Your task to perform on an android device: Open Wikipedia Image 0: 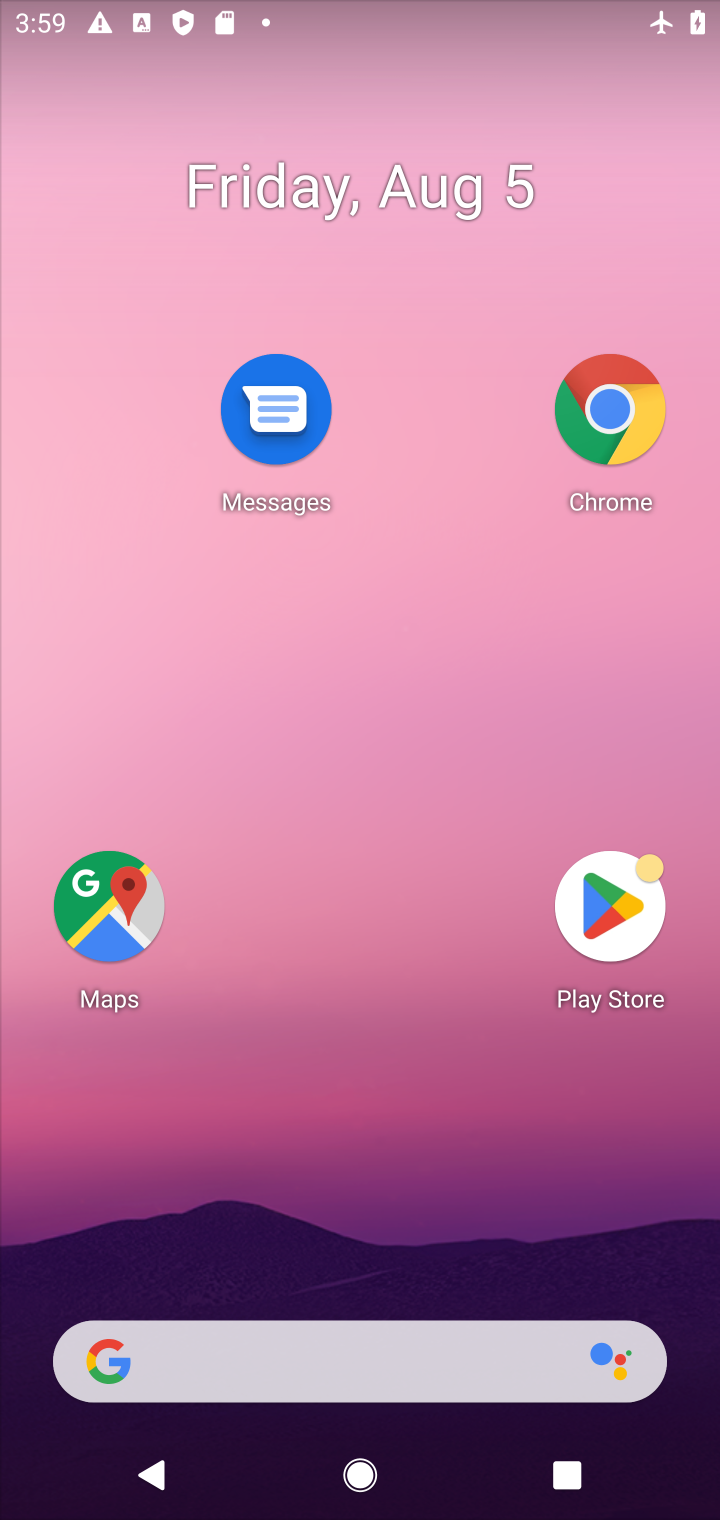
Step 0: click (580, 488)
Your task to perform on an android device: Open Wikipedia Image 1: 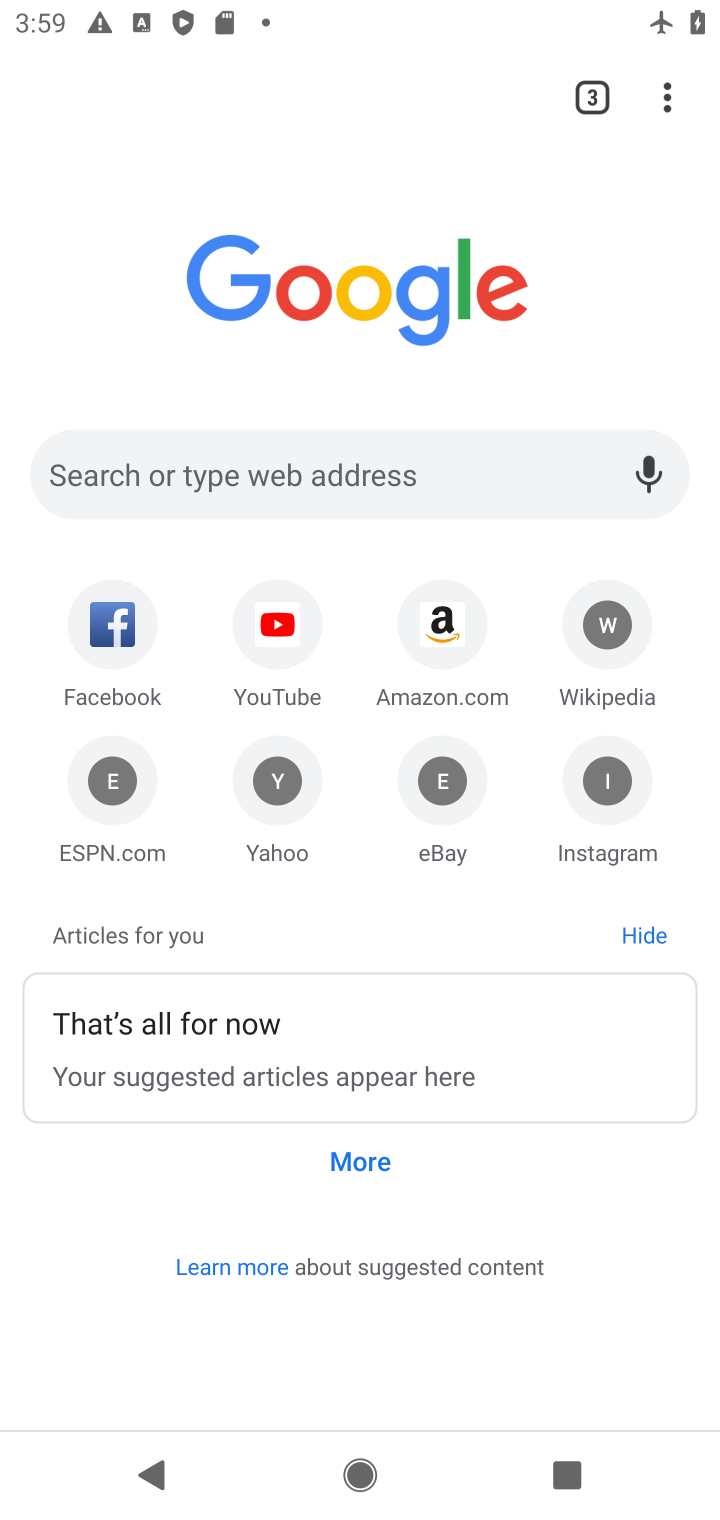
Step 1: click (580, 624)
Your task to perform on an android device: Open Wikipedia Image 2: 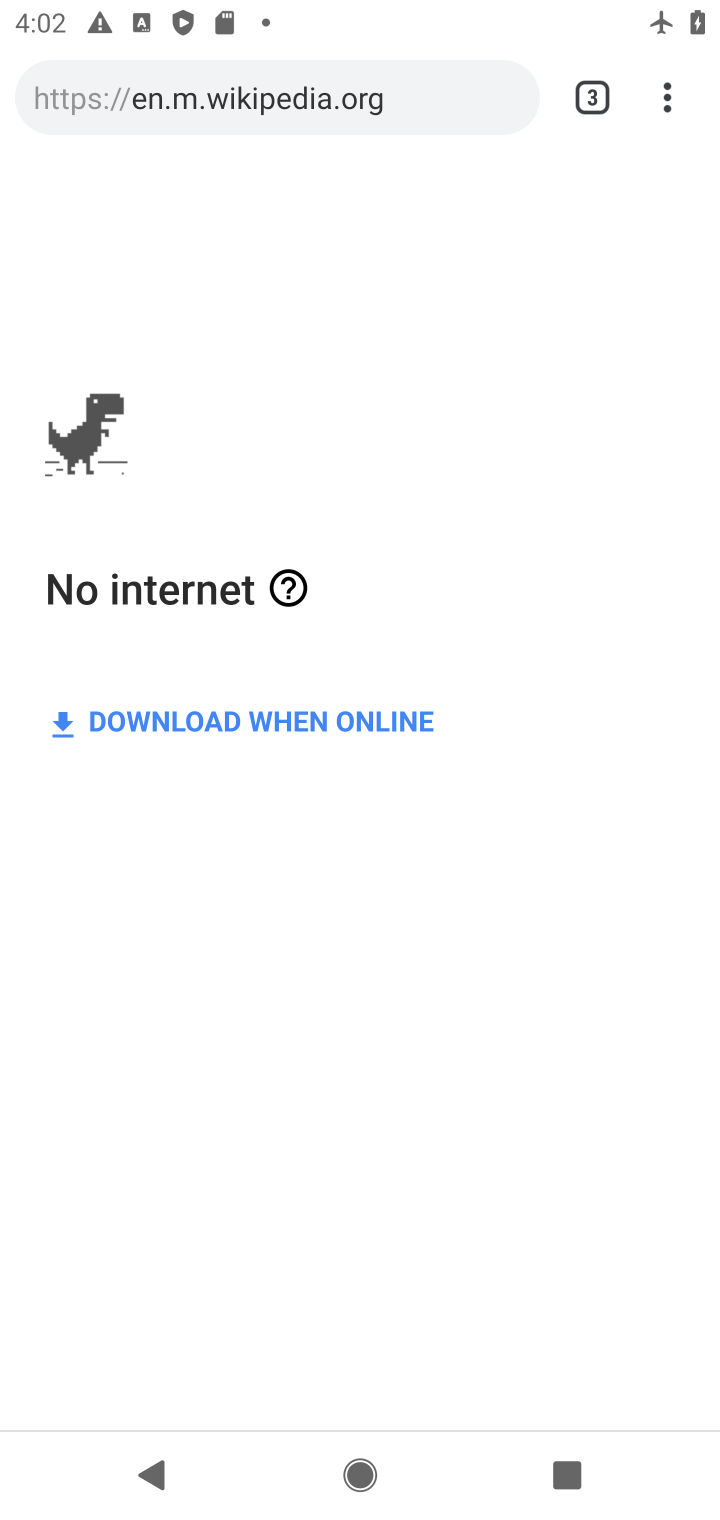
Step 2: click (580, 93)
Your task to perform on an android device: Open Wikipedia Image 3: 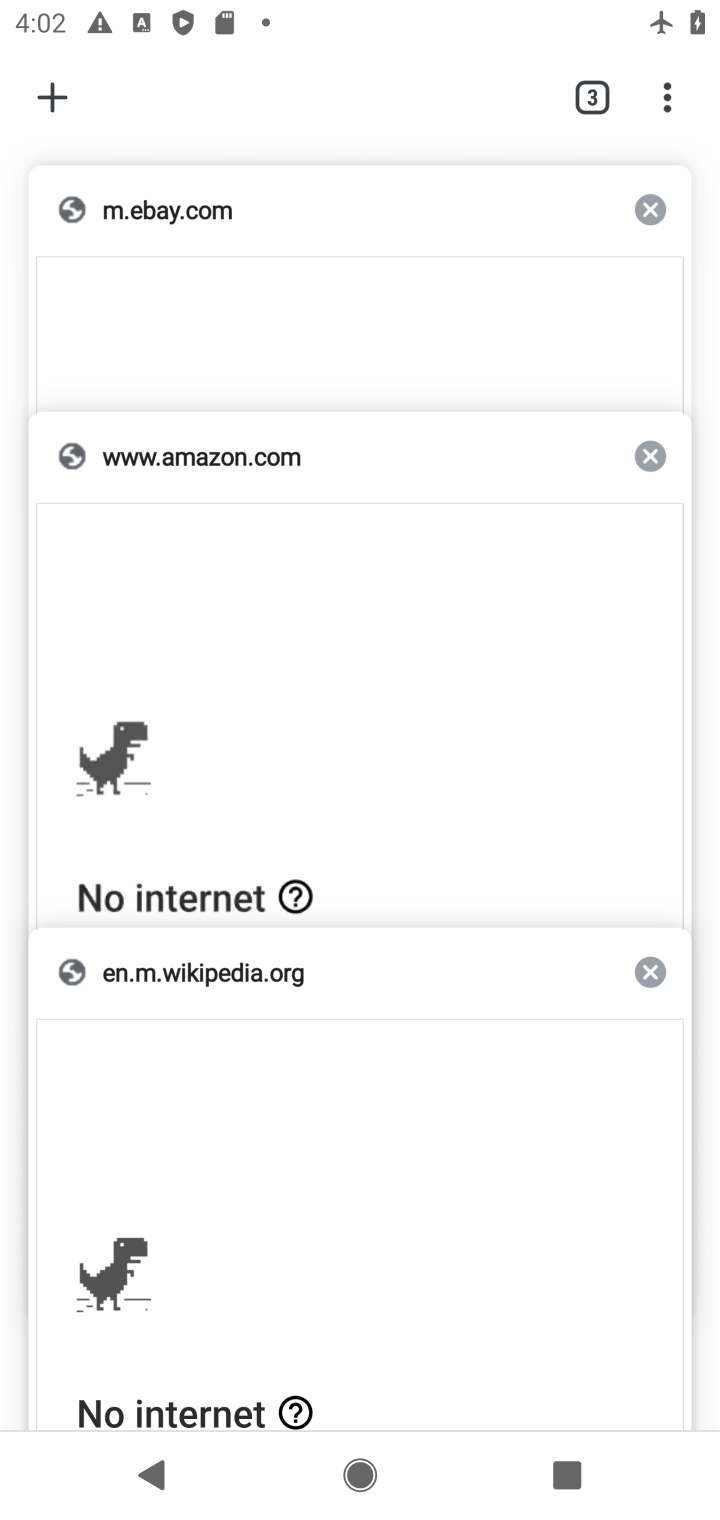
Step 3: click (69, 95)
Your task to perform on an android device: Open Wikipedia Image 4: 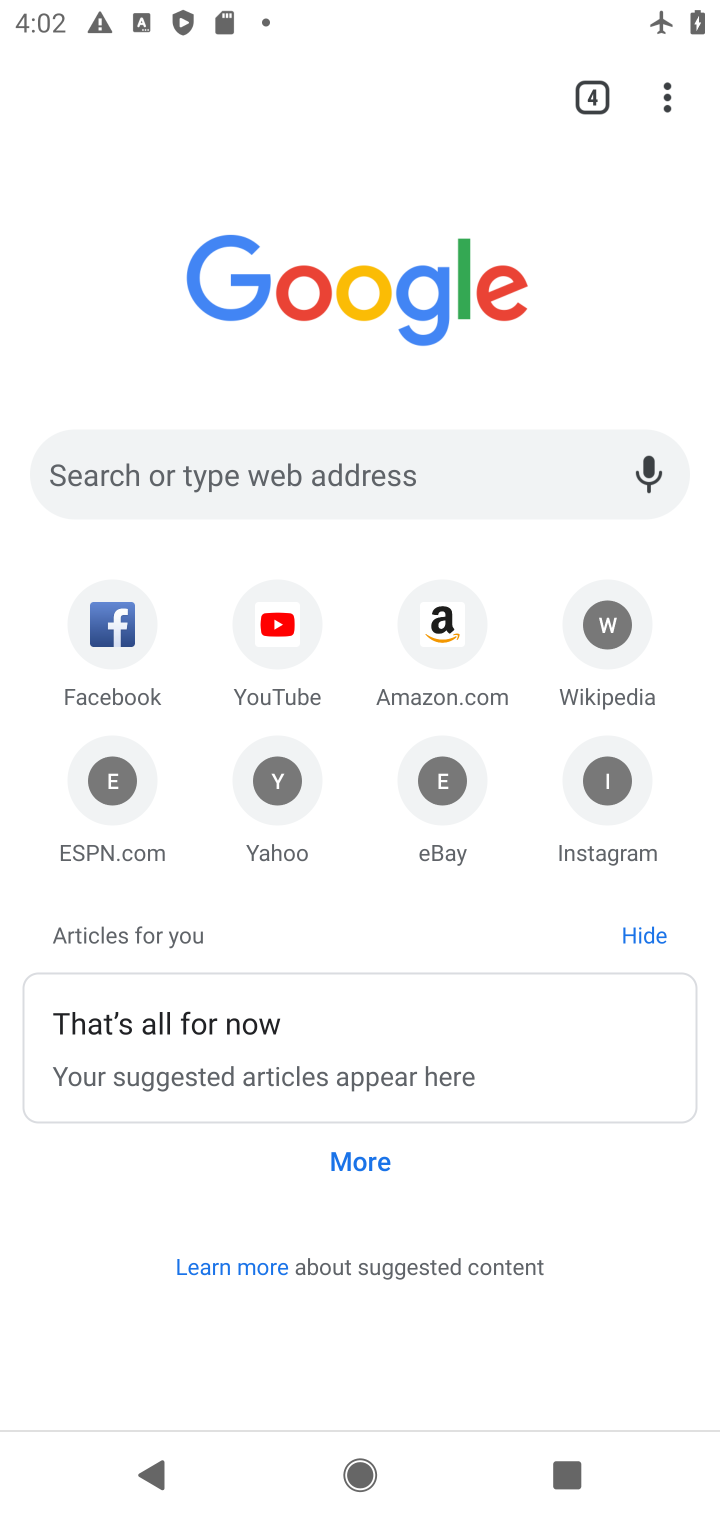
Step 4: click (626, 618)
Your task to perform on an android device: Open Wikipedia Image 5: 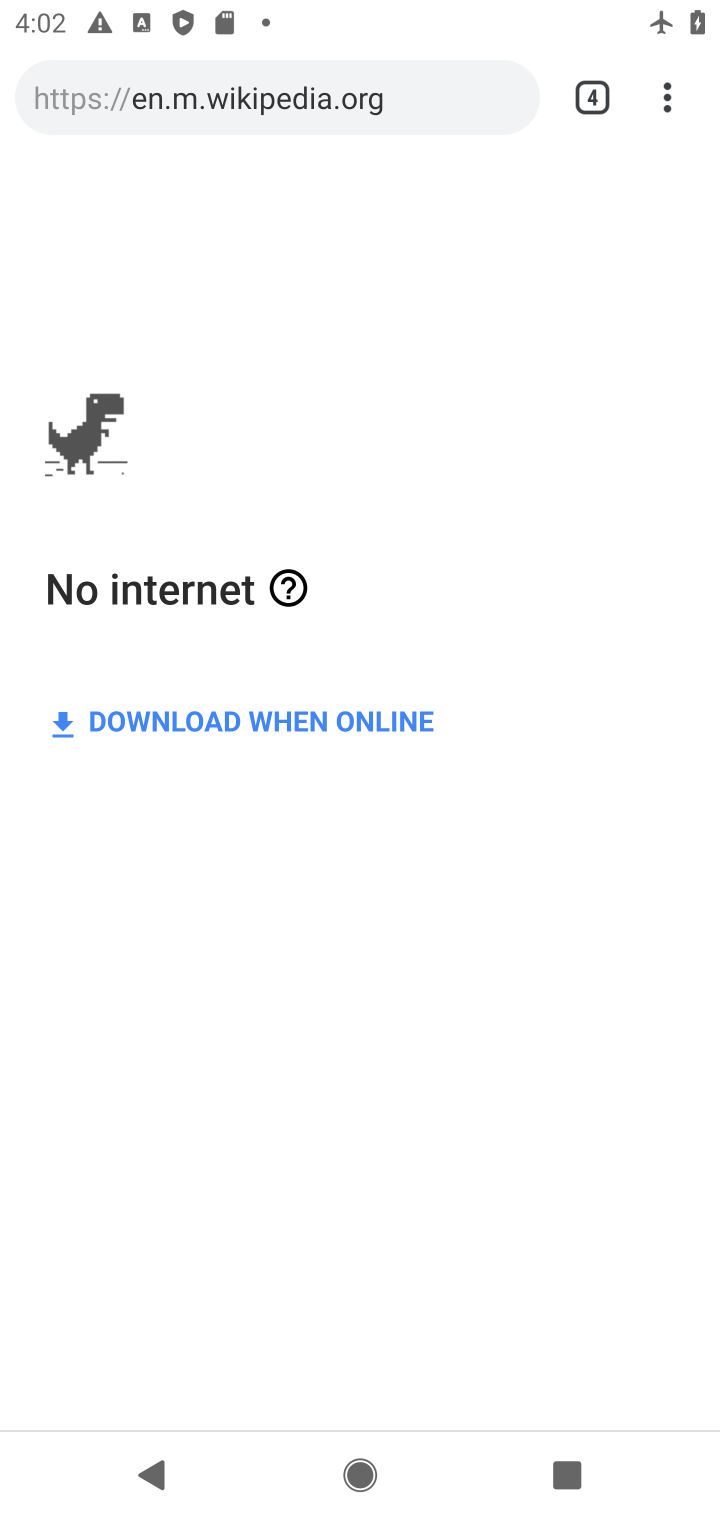
Step 5: task complete